Your task to perform on an android device: install app "Messages" Image 0: 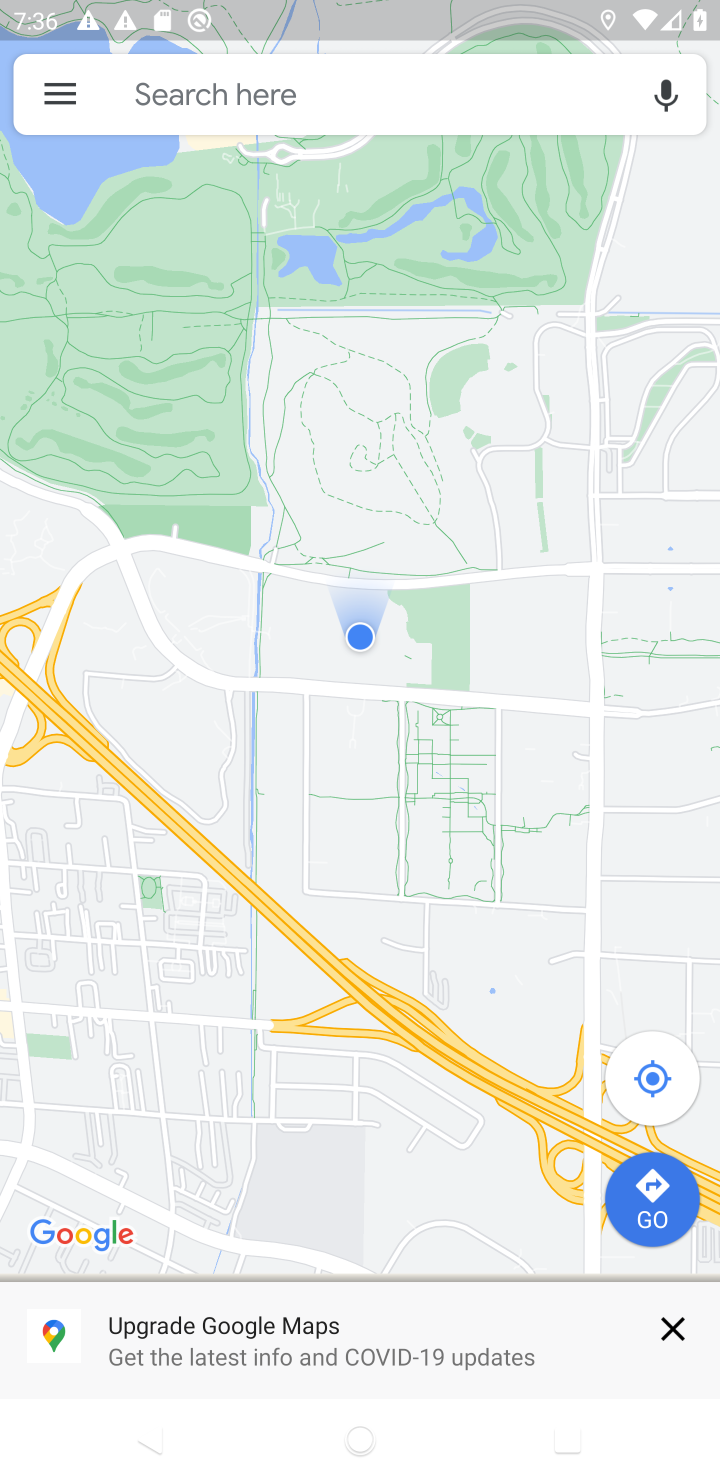
Step 0: press home button
Your task to perform on an android device: install app "Messages" Image 1: 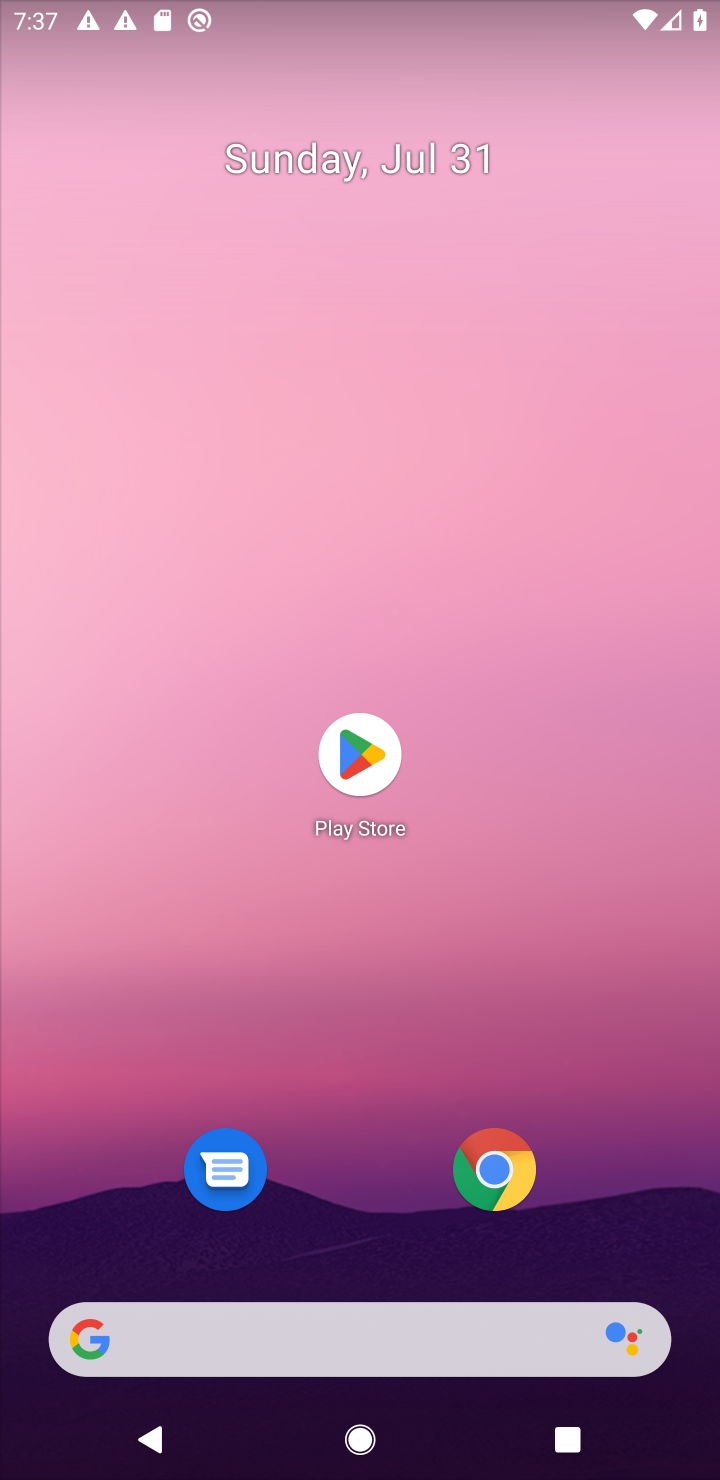
Step 1: click (348, 765)
Your task to perform on an android device: install app "Messages" Image 2: 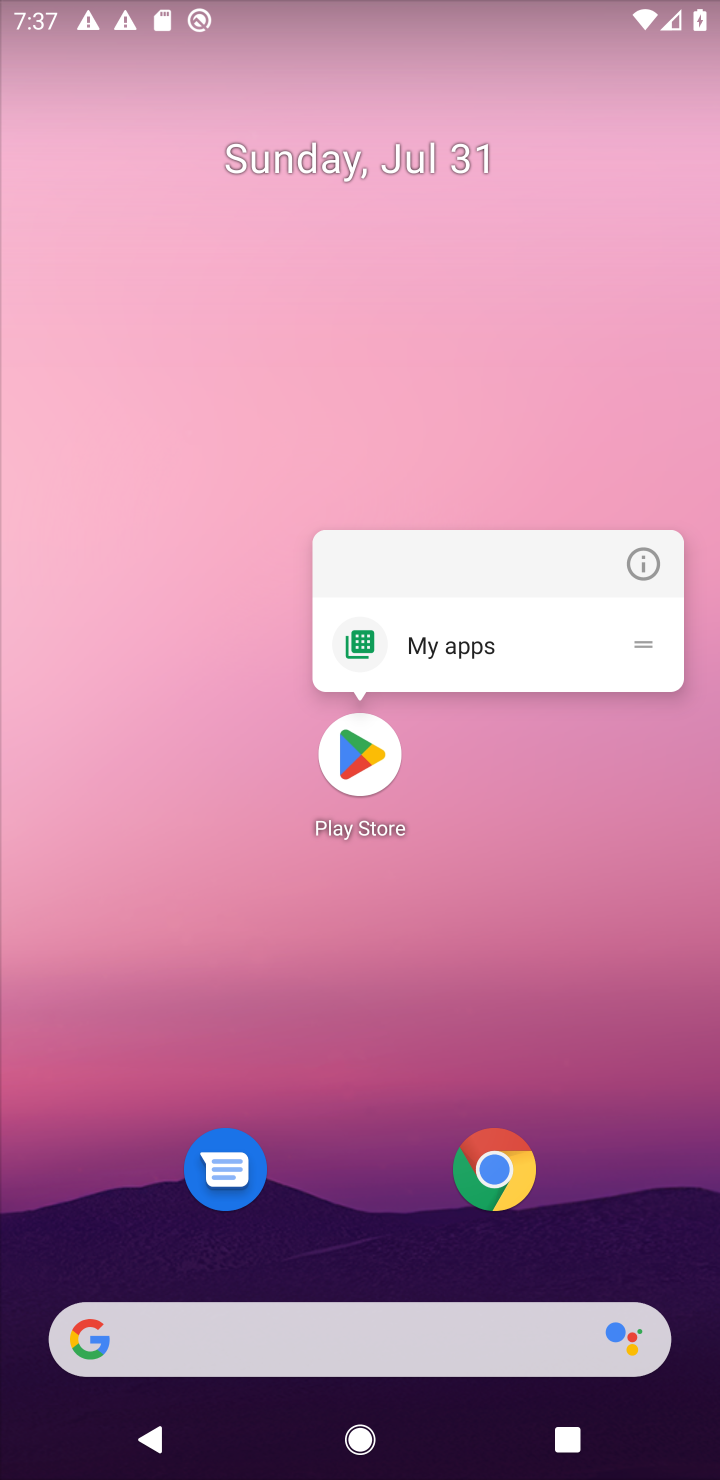
Step 2: click (348, 768)
Your task to perform on an android device: install app "Messages" Image 3: 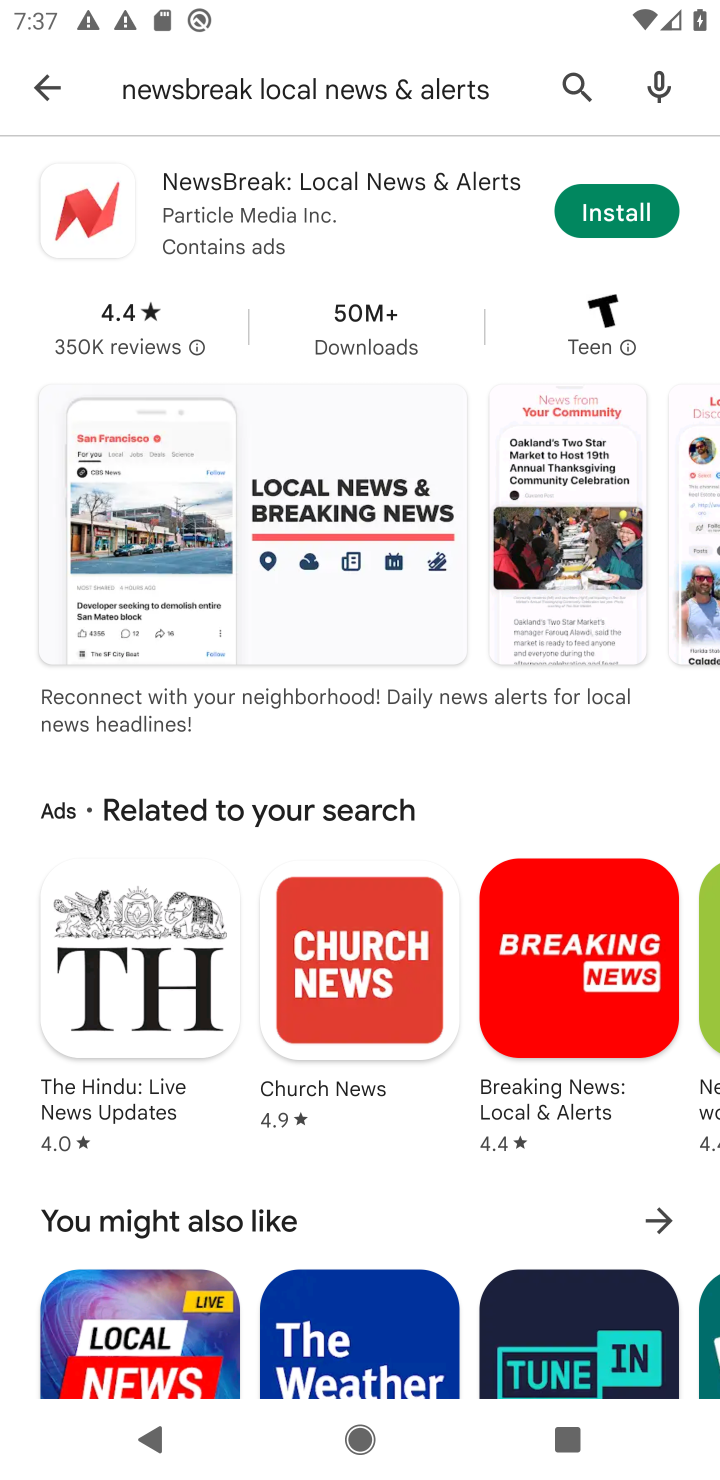
Step 3: click (568, 86)
Your task to perform on an android device: install app "Messages" Image 4: 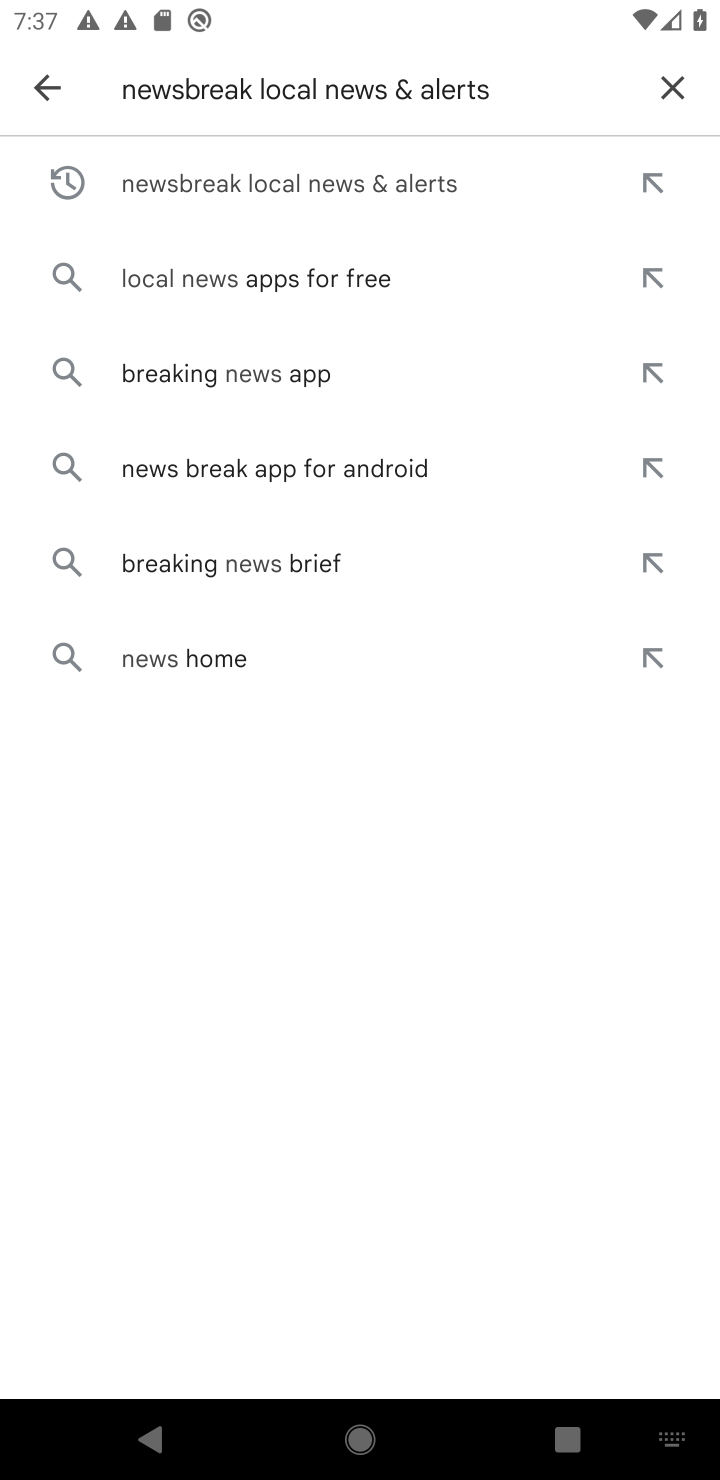
Step 4: click (677, 91)
Your task to perform on an android device: install app "Messages" Image 5: 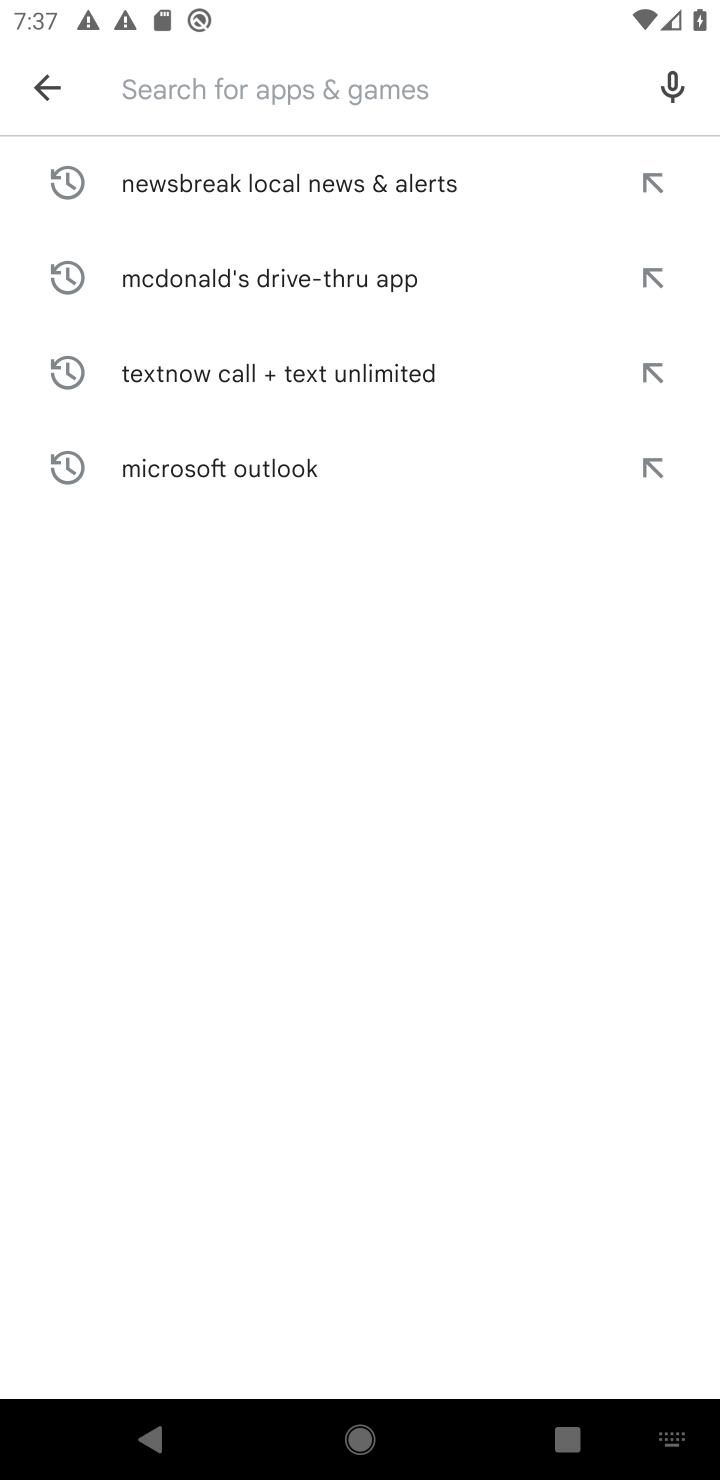
Step 5: type "Messages"
Your task to perform on an android device: install app "Messages" Image 6: 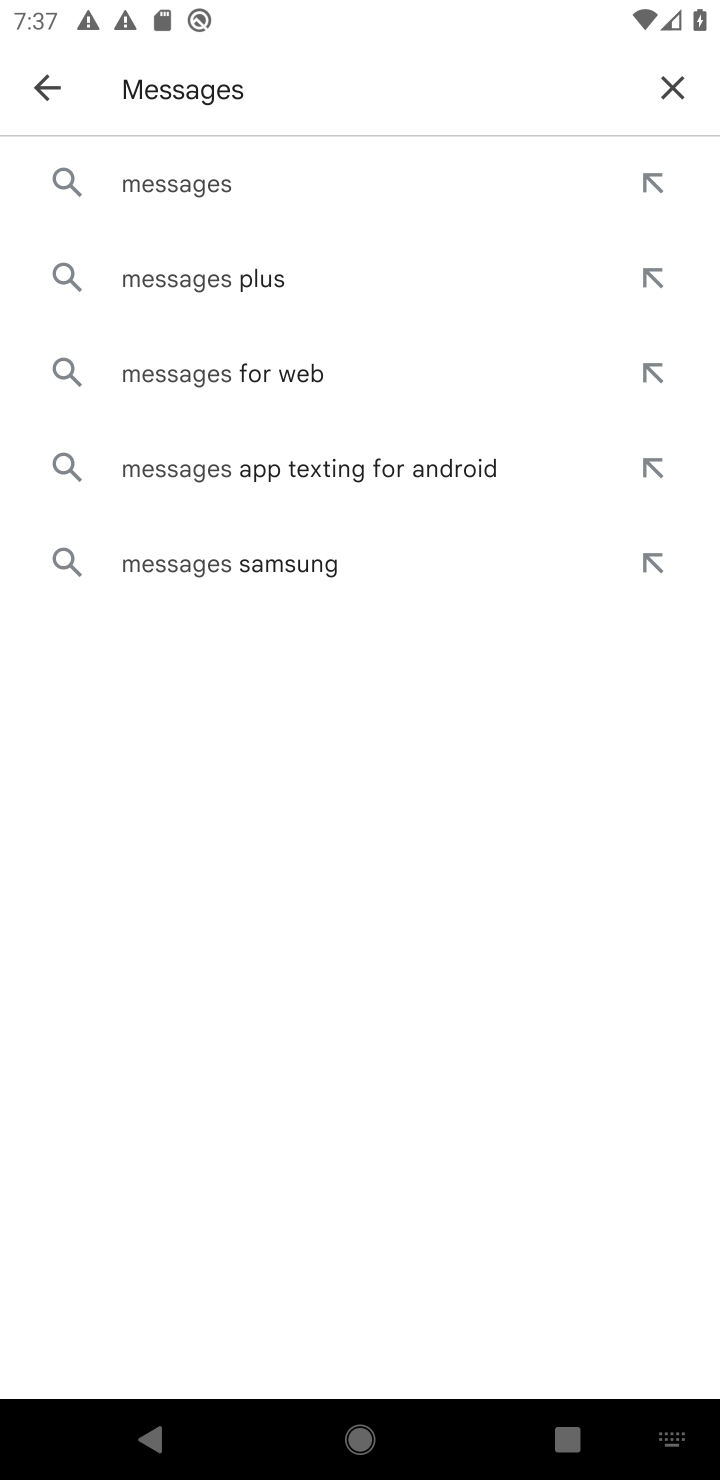
Step 6: click (179, 195)
Your task to perform on an android device: install app "Messages" Image 7: 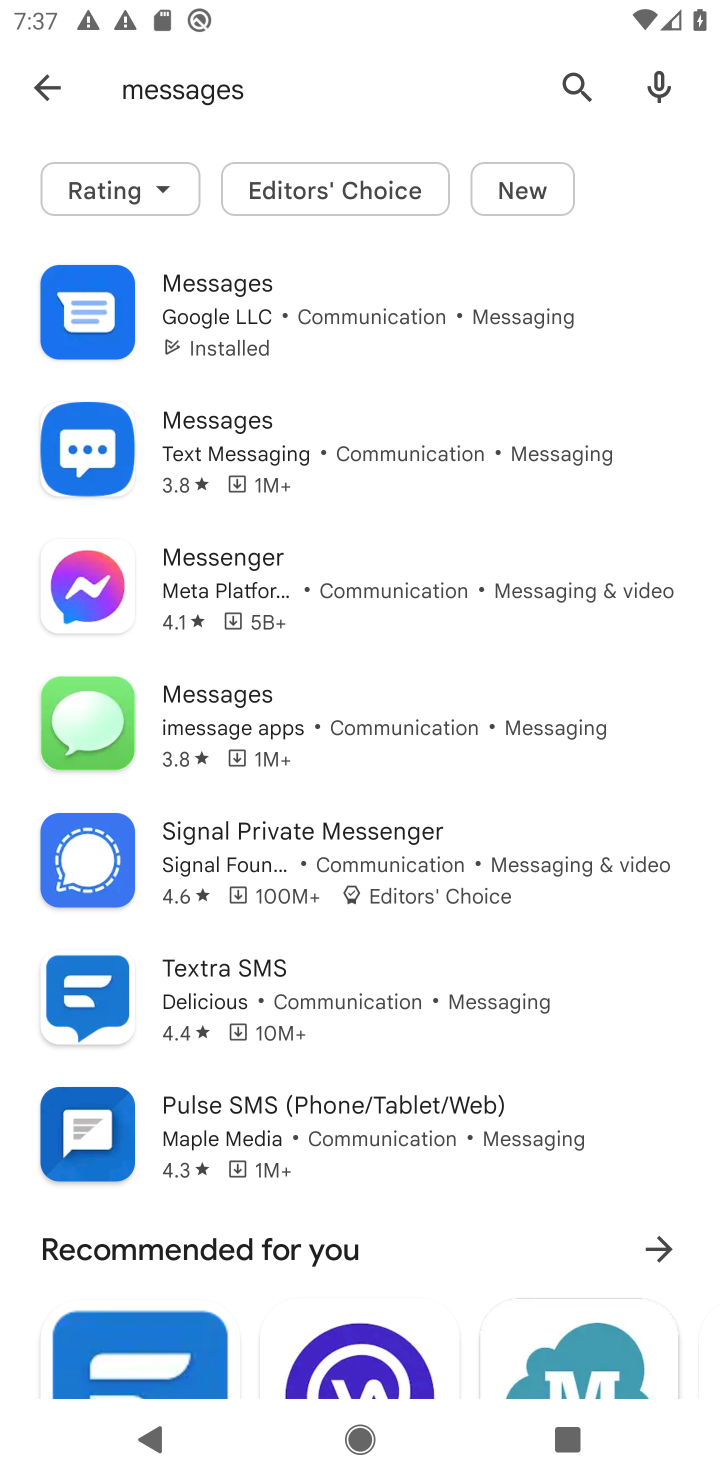
Step 7: click (221, 321)
Your task to perform on an android device: install app "Messages" Image 8: 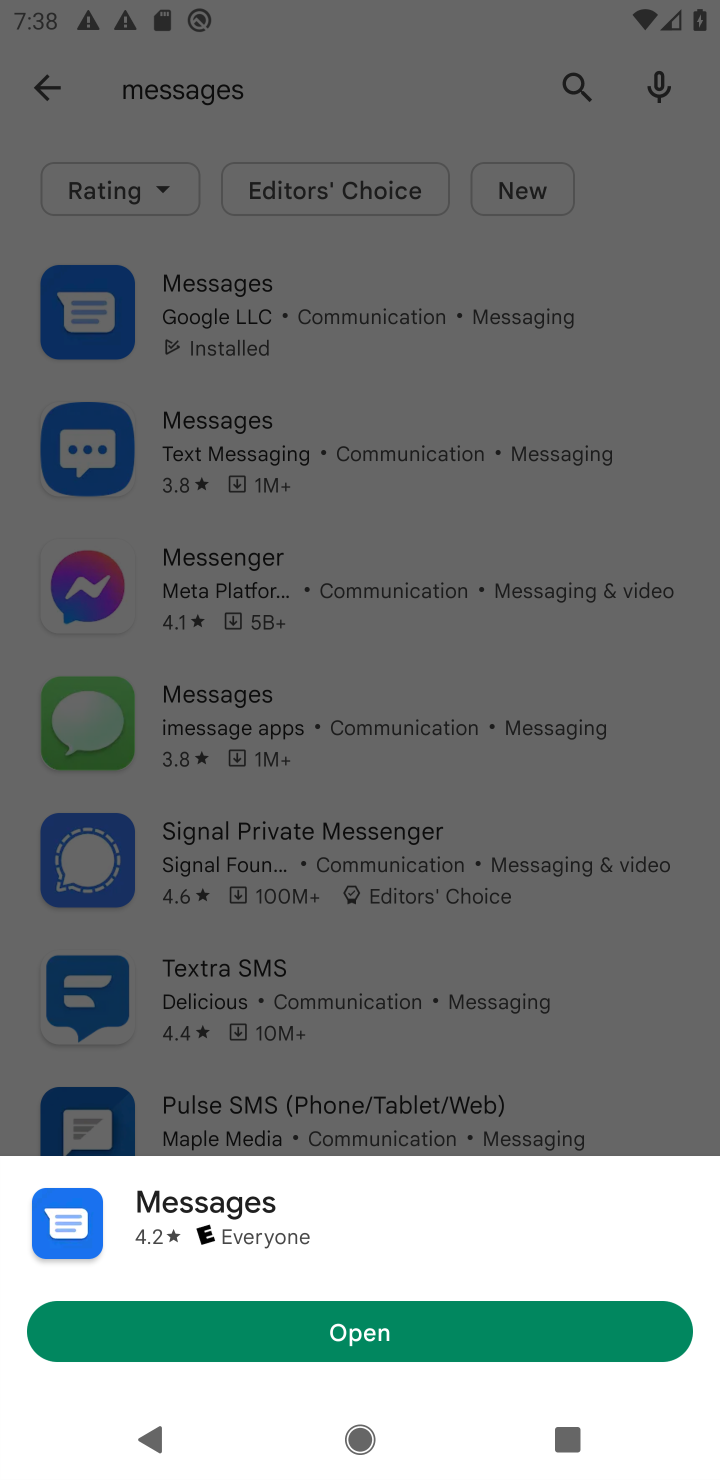
Step 8: task complete